Your task to perform on an android device: Search for the new lego star wars 2021 on Target Image 0: 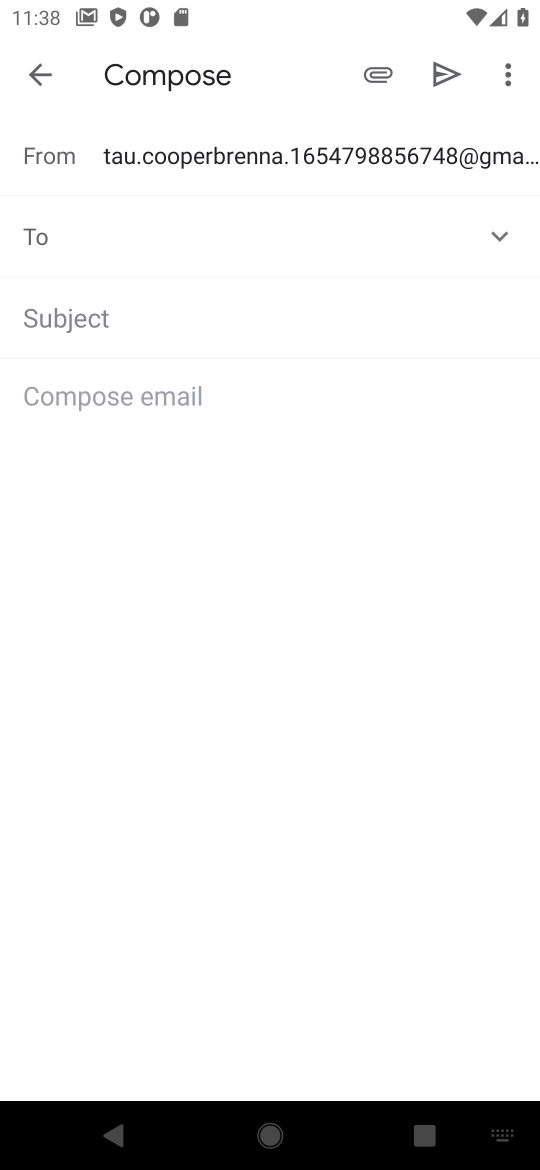
Step 0: press home button
Your task to perform on an android device: Search for the new lego star wars 2021 on Target Image 1: 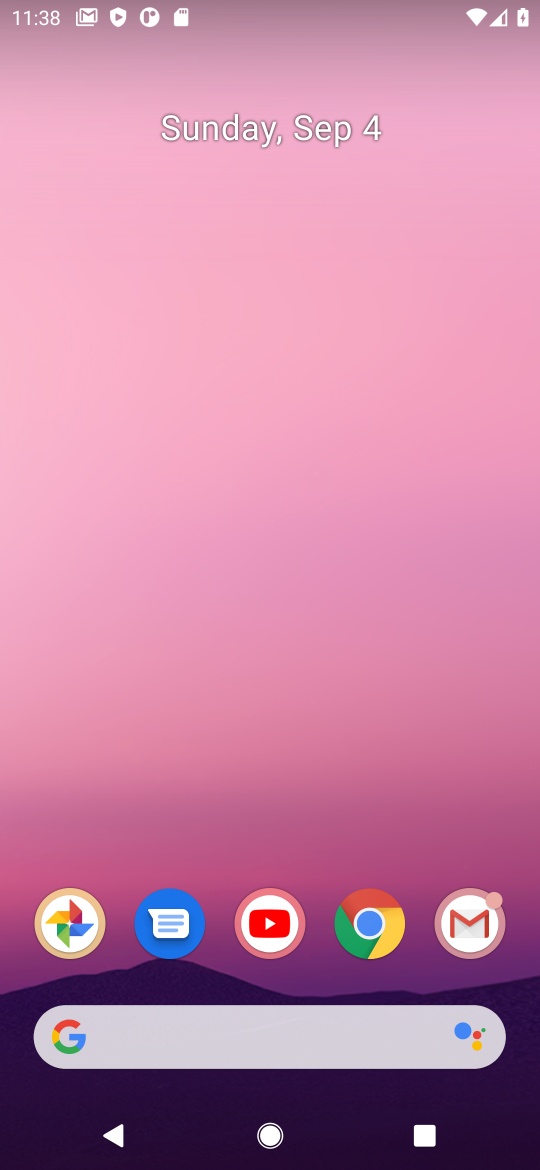
Step 1: click (358, 923)
Your task to perform on an android device: Search for the new lego star wars 2021 on Target Image 2: 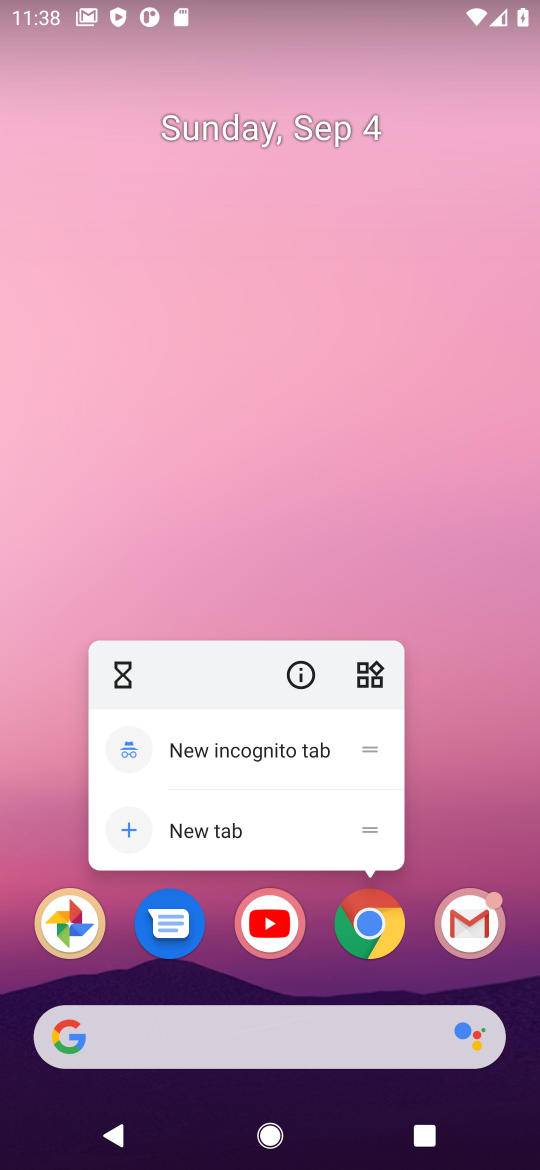
Step 2: click (358, 923)
Your task to perform on an android device: Search for the new lego star wars 2021 on Target Image 3: 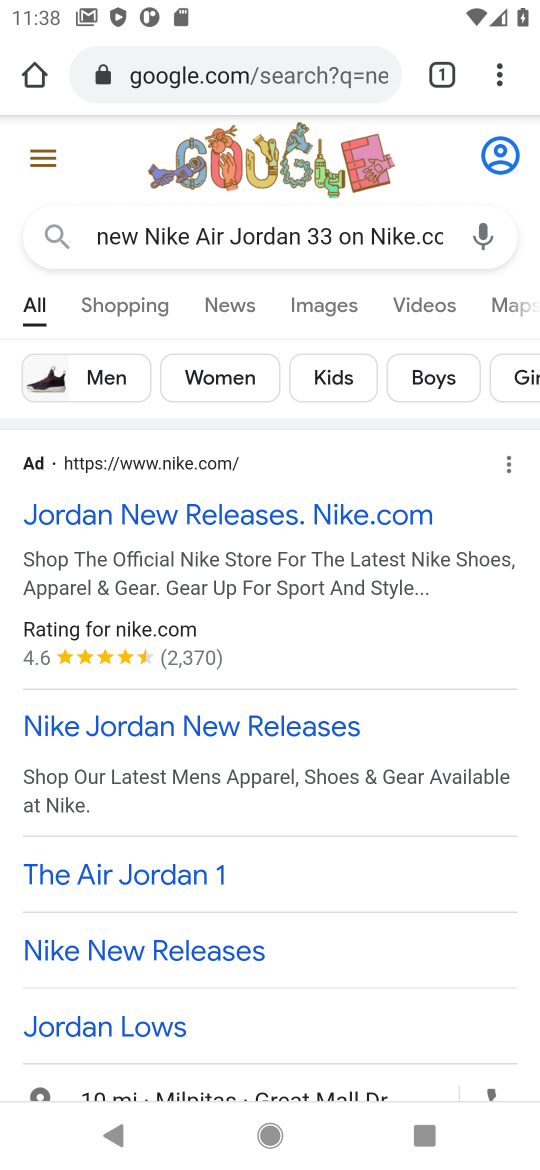
Step 3: click (184, 61)
Your task to perform on an android device: Search for the new lego star wars 2021 on Target Image 4: 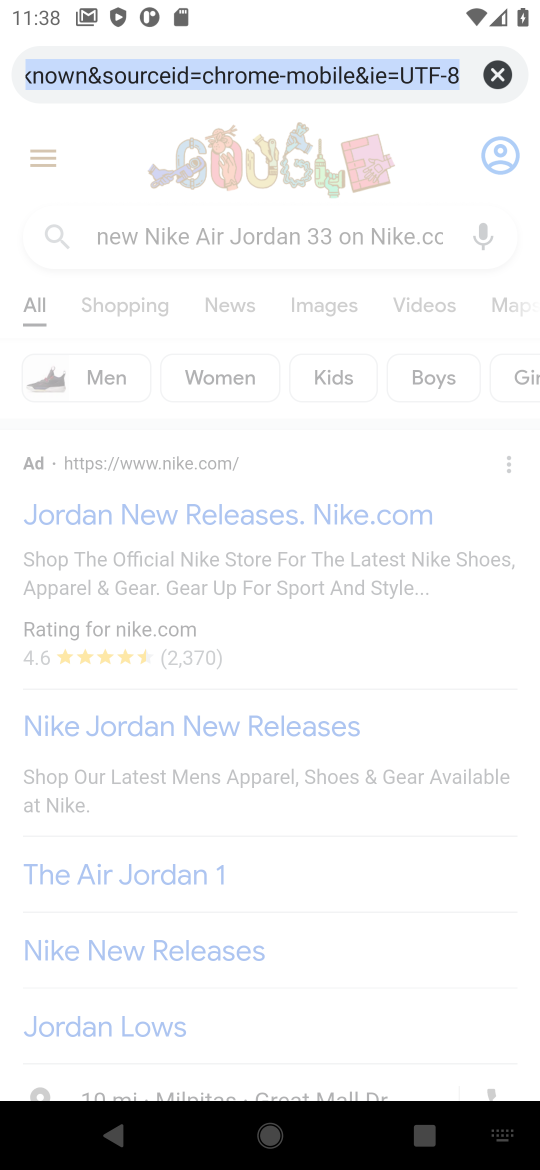
Step 4: click (495, 80)
Your task to perform on an android device: Search for the new lego star wars 2021 on Target Image 5: 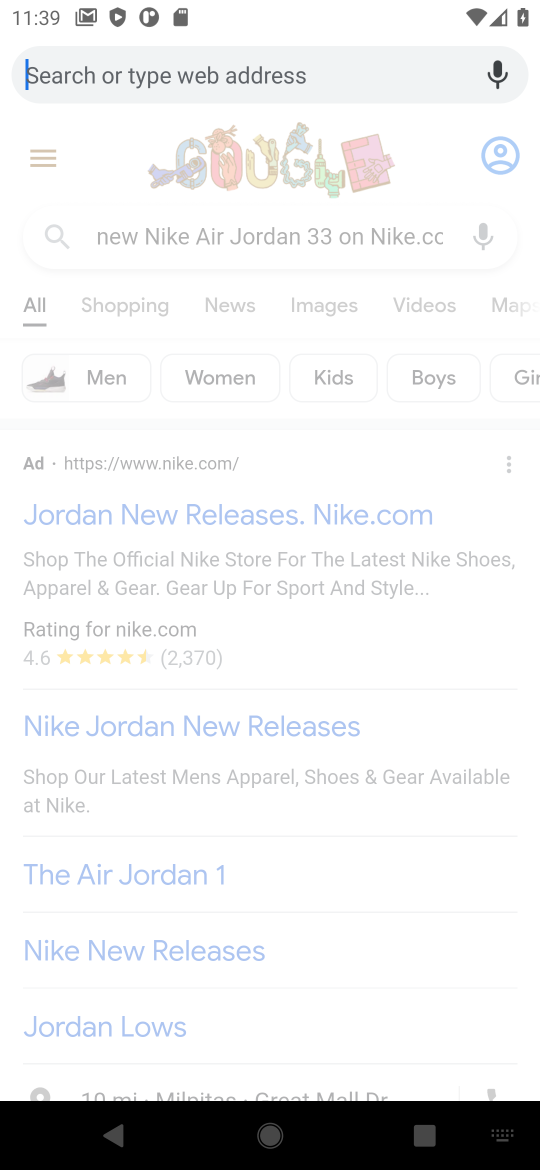
Step 5: type " the new lego star wars 2021 on Target"
Your task to perform on an android device: Search for the new lego star wars 2021 on Target Image 6: 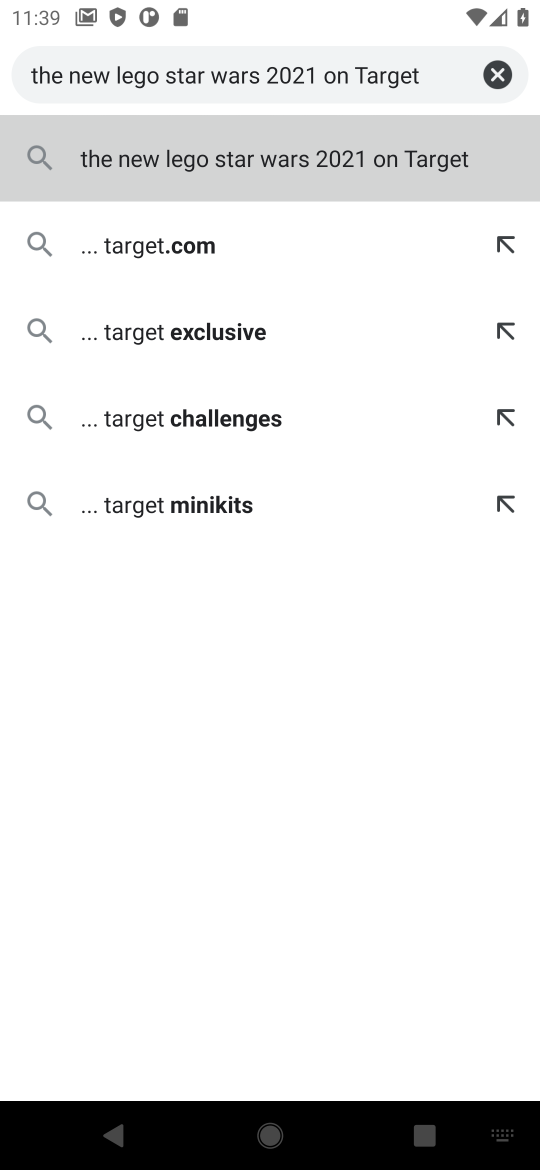
Step 6: click (388, 181)
Your task to perform on an android device: Search for the new lego star wars 2021 on Target Image 7: 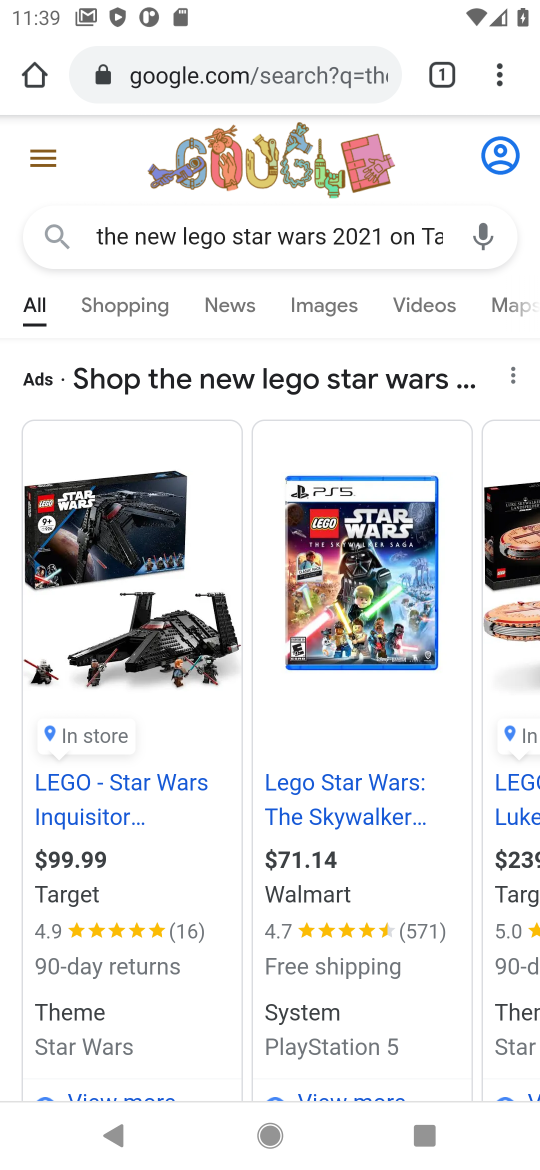
Step 7: task complete